Your task to perform on an android device: delete a single message in the gmail app Image 0: 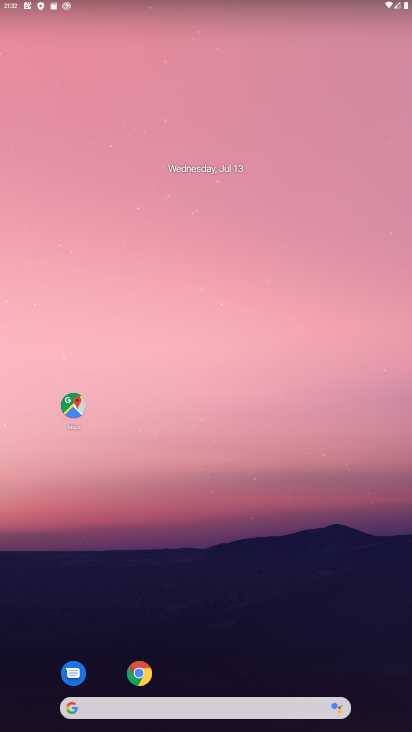
Step 0: drag from (188, 672) to (175, 186)
Your task to perform on an android device: delete a single message in the gmail app Image 1: 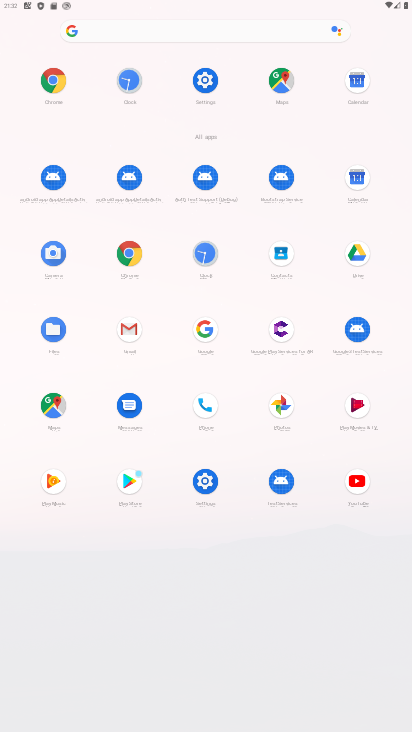
Step 1: click (132, 343)
Your task to perform on an android device: delete a single message in the gmail app Image 2: 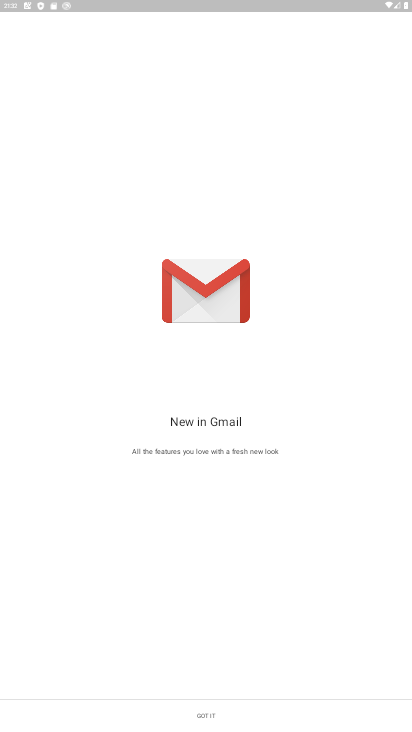
Step 2: click (222, 706)
Your task to perform on an android device: delete a single message in the gmail app Image 3: 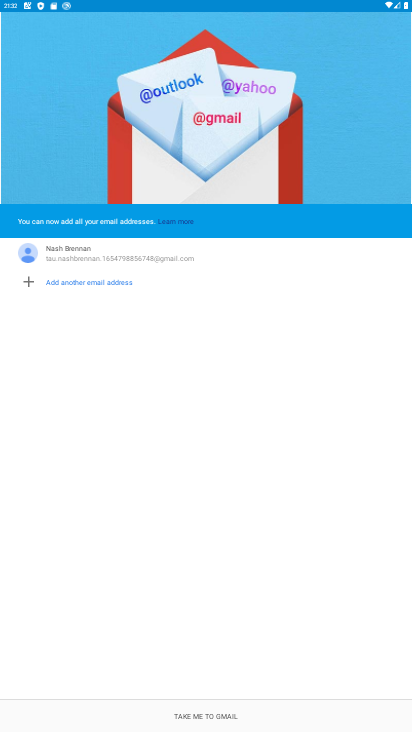
Step 3: click (209, 719)
Your task to perform on an android device: delete a single message in the gmail app Image 4: 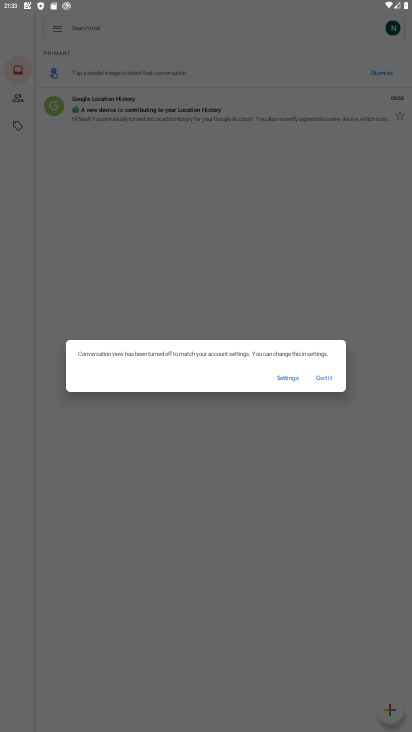
Step 4: click (328, 371)
Your task to perform on an android device: delete a single message in the gmail app Image 5: 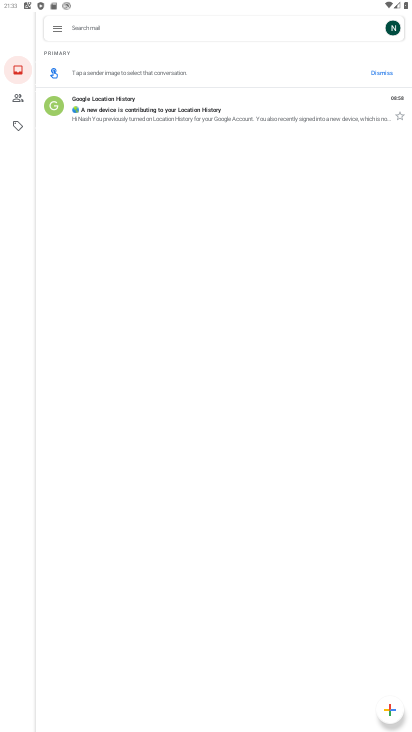
Step 5: click (156, 103)
Your task to perform on an android device: delete a single message in the gmail app Image 6: 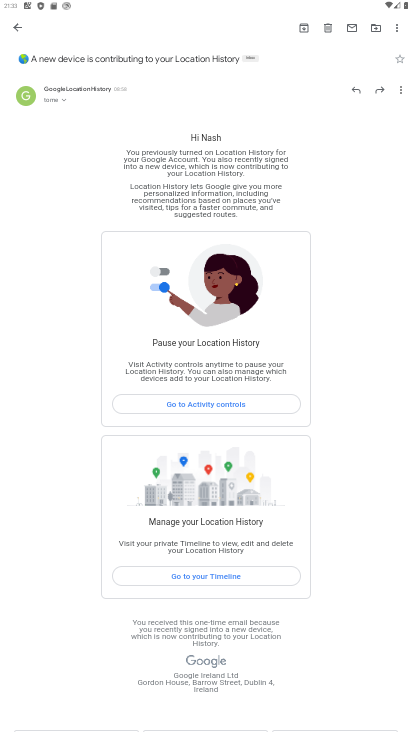
Step 6: click (328, 27)
Your task to perform on an android device: delete a single message in the gmail app Image 7: 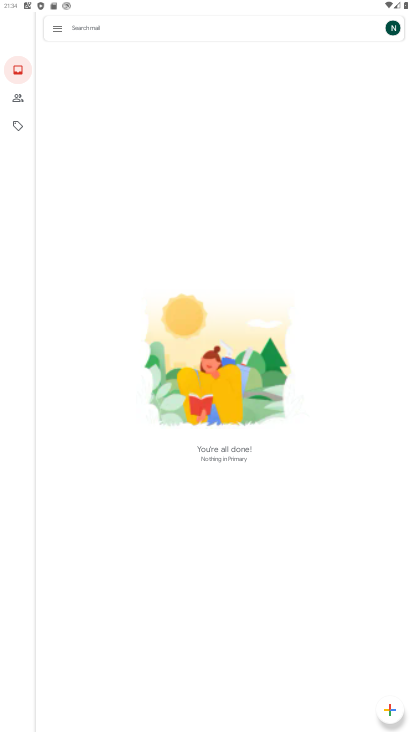
Step 7: task complete